Your task to perform on an android device: turn off notifications in google photos Image 0: 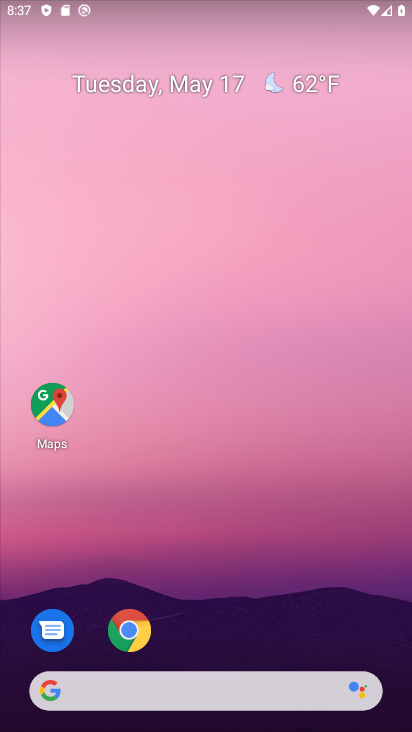
Step 0: press home button
Your task to perform on an android device: turn off notifications in google photos Image 1: 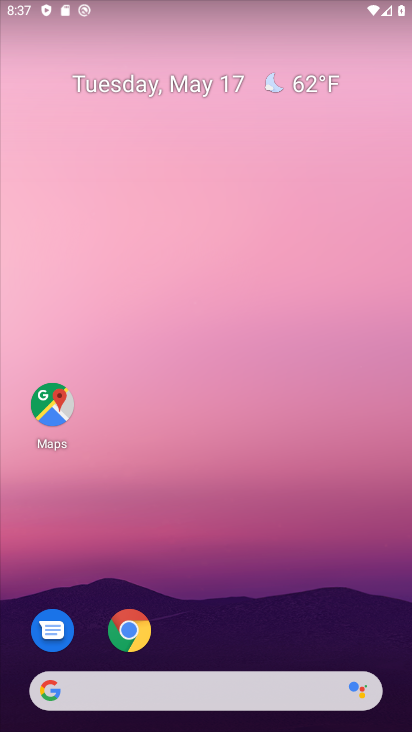
Step 1: drag from (216, 621) to (172, 281)
Your task to perform on an android device: turn off notifications in google photos Image 2: 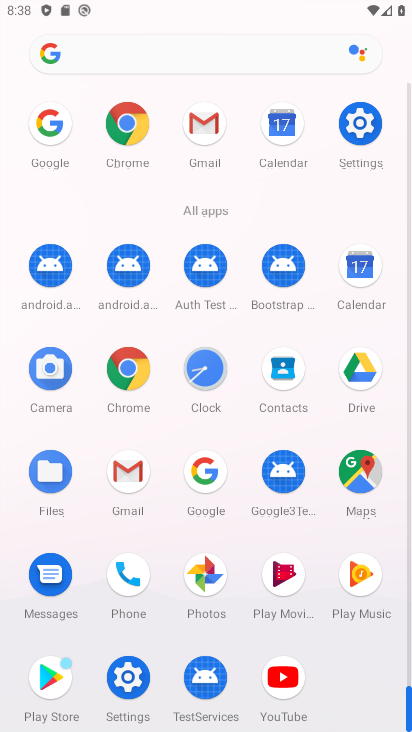
Step 2: click (195, 583)
Your task to perform on an android device: turn off notifications in google photos Image 3: 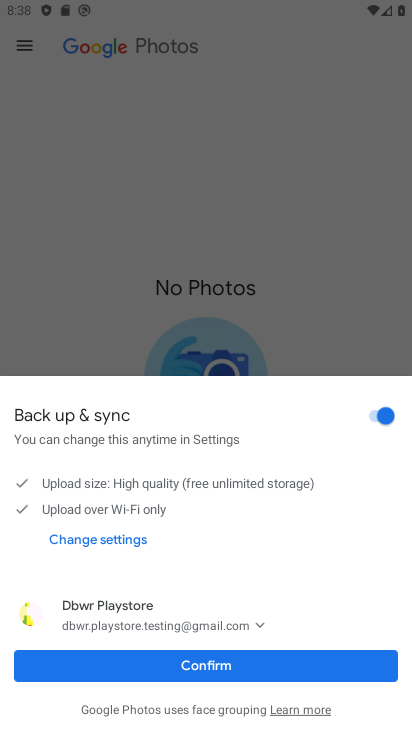
Step 3: click (226, 666)
Your task to perform on an android device: turn off notifications in google photos Image 4: 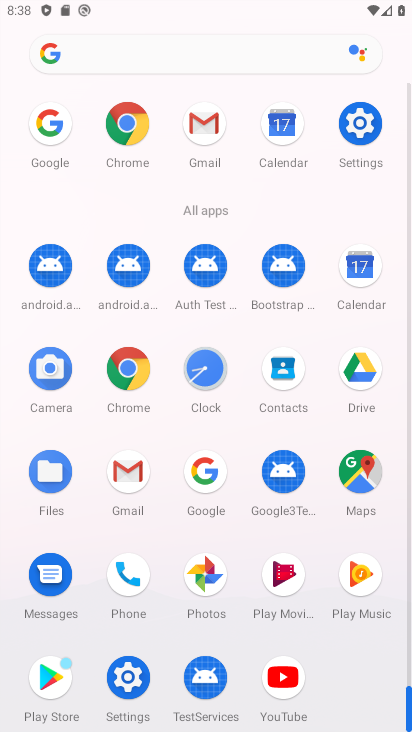
Step 4: click (199, 599)
Your task to perform on an android device: turn off notifications in google photos Image 5: 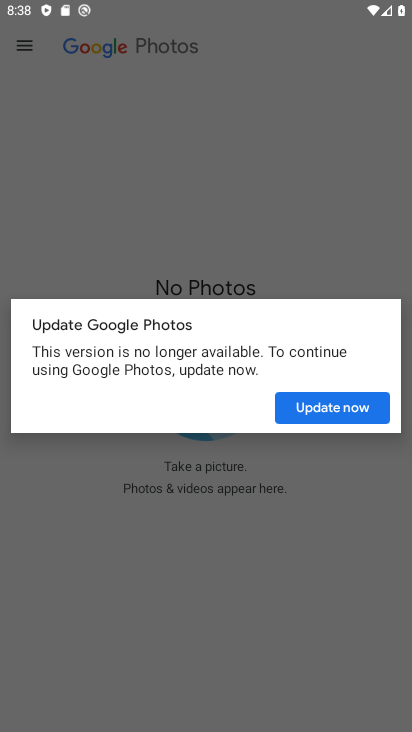
Step 5: click (308, 414)
Your task to perform on an android device: turn off notifications in google photos Image 6: 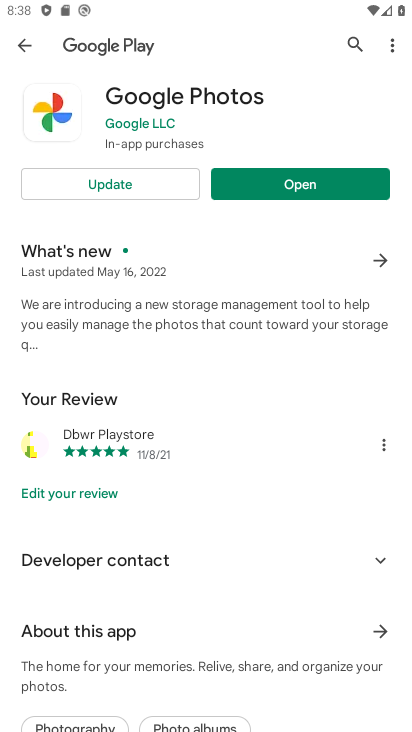
Step 6: click (298, 190)
Your task to perform on an android device: turn off notifications in google photos Image 7: 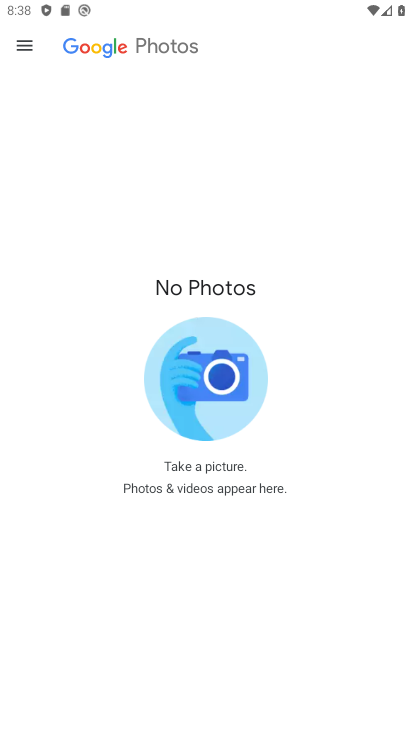
Step 7: click (22, 47)
Your task to perform on an android device: turn off notifications in google photos Image 8: 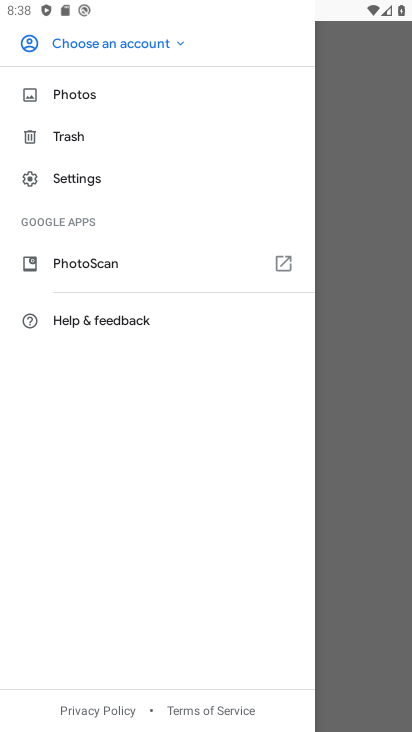
Step 8: click (85, 180)
Your task to perform on an android device: turn off notifications in google photos Image 9: 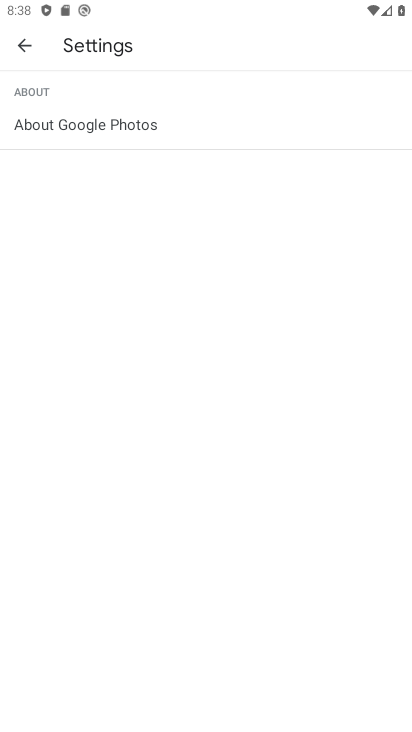
Step 9: click (26, 51)
Your task to perform on an android device: turn off notifications in google photos Image 10: 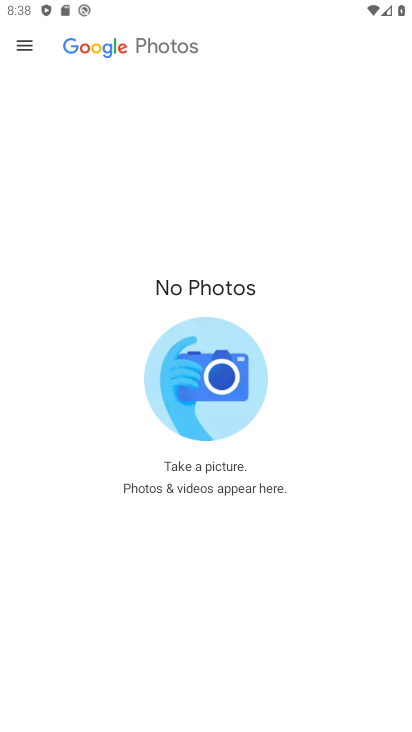
Step 10: click (26, 51)
Your task to perform on an android device: turn off notifications in google photos Image 11: 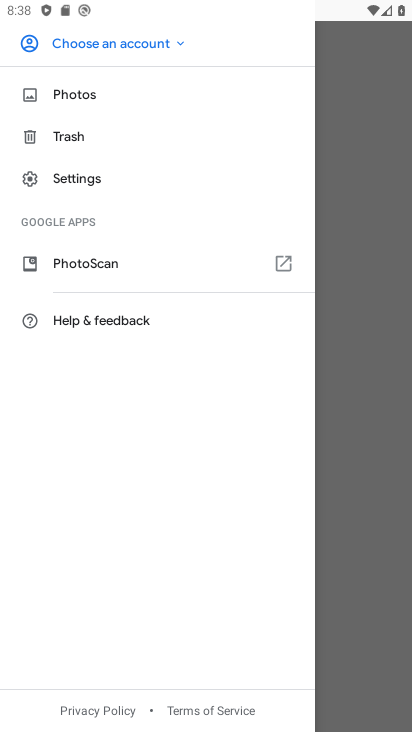
Step 11: click (85, 180)
Your task to perform on an android device: turn off notifications in google photos Image 12: 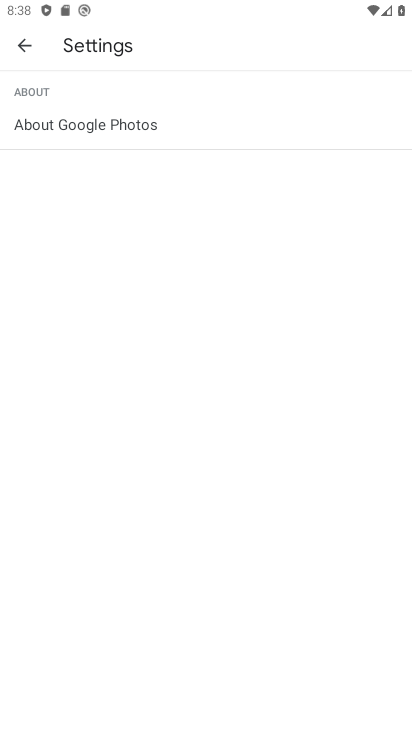
Step 12: click (73, 133)
Your task to perform on an android device: turn off notifications in google photos Image 13: 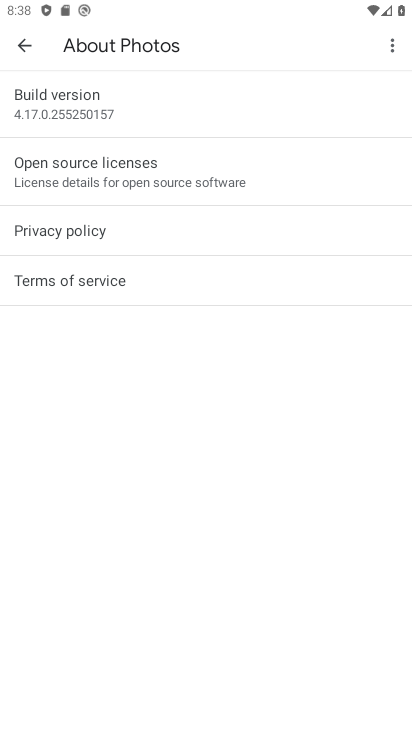
Step 13: click (20, 52)
Your task to perform on an android device: turn off notifications in google photos Image 14: 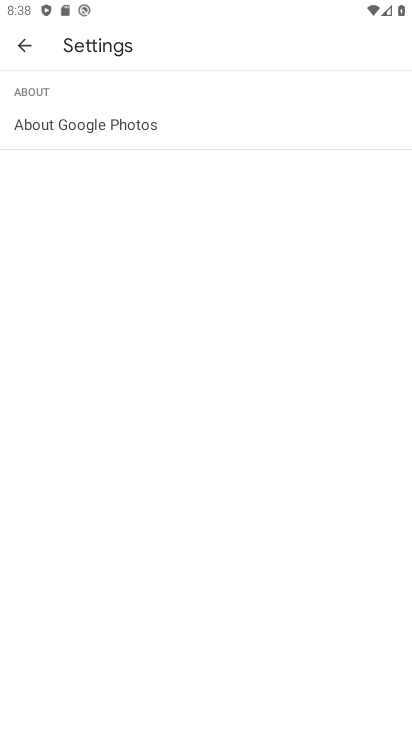
Step 14: click (36, 42)
Your task to perform on an android device: turn off notifications in google photos Image 15: 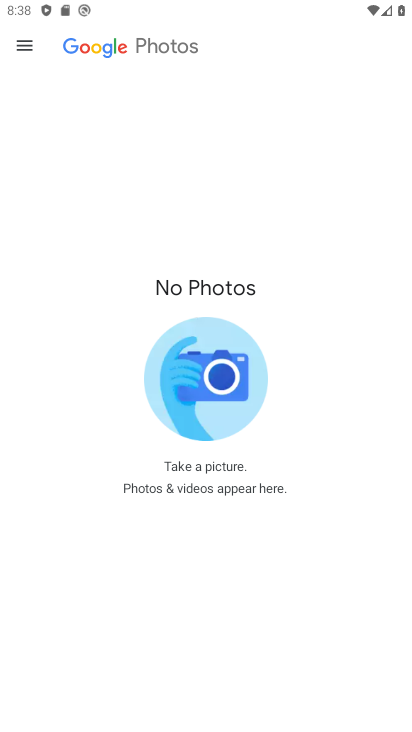
Step 15: click (33, 49)
Your task to perform on an android device: turn off notifications in google photos Image 16: 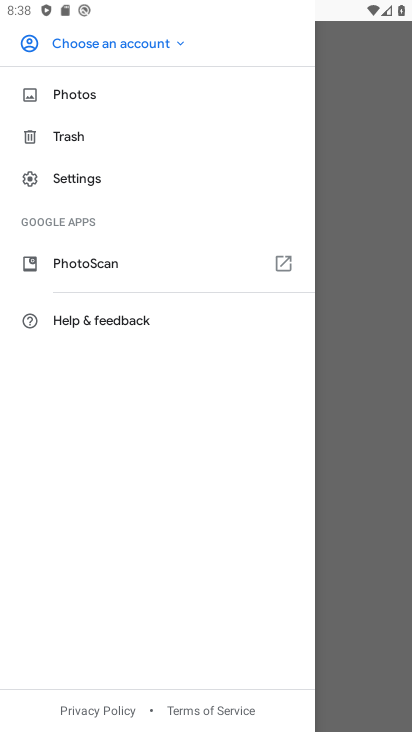
Step 16: click (83, 175)
Your task to perform on an android device: turn off notifications in google photos Image 17: 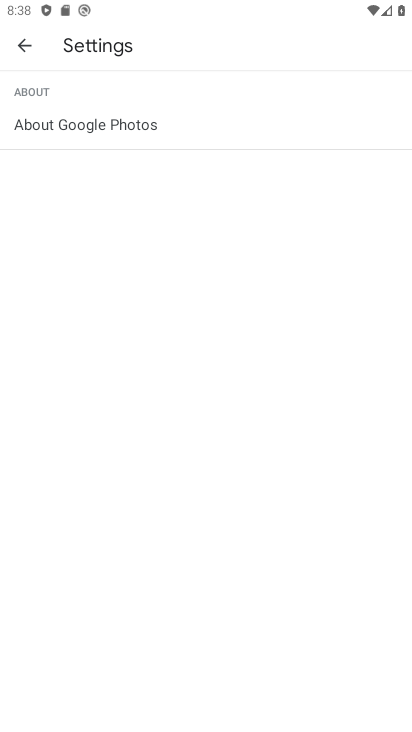
Step 17: click (76, 55)
Your task to perform on an android device: turn off notifications in google photos Image 18: 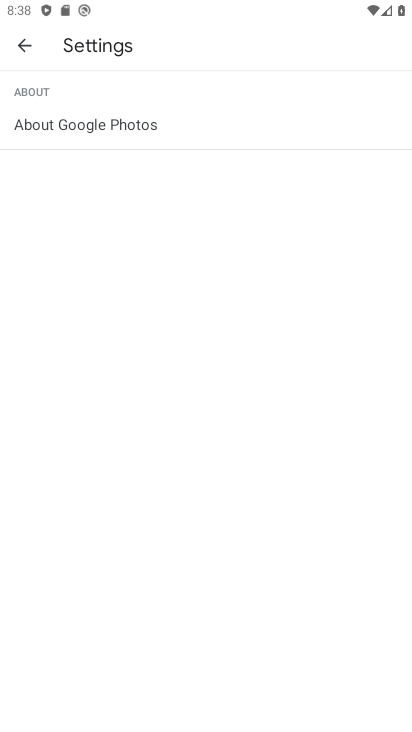
Step 18: click (22, 41)
Your task to perform on an android device: turn off notifications in google photos Image 19: 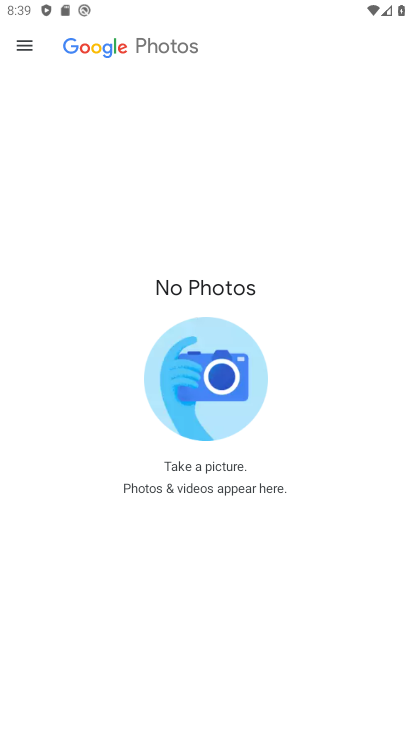
Step 19: click (26, 49)
Your task to perform on an android device: turn off notifications in google photos Image 20: 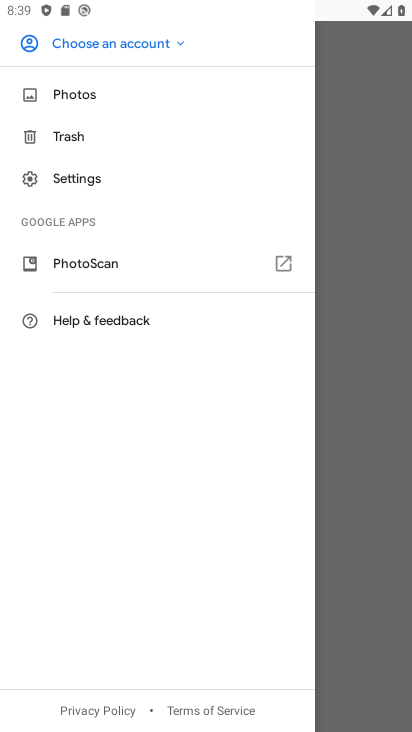
Step 20: click (64, 98)
Your task to perform on an android device: turn off notifications in google photos Image 21: 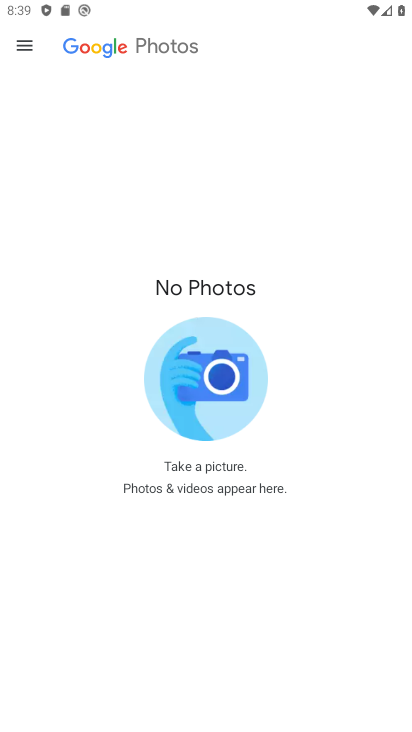
Step 21: click (34, 47)
Your task to perform on an android device: turn off notifications in google photos Image 22: 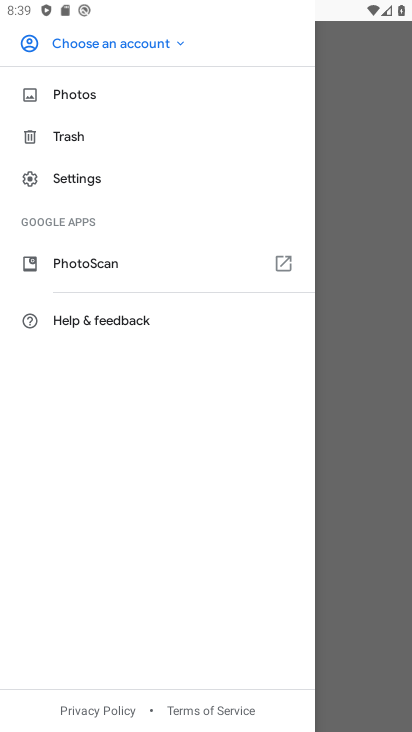
Step 22: click (123, 38)
Your task to perform on an android device: turn off notifications in google photos Image 23: 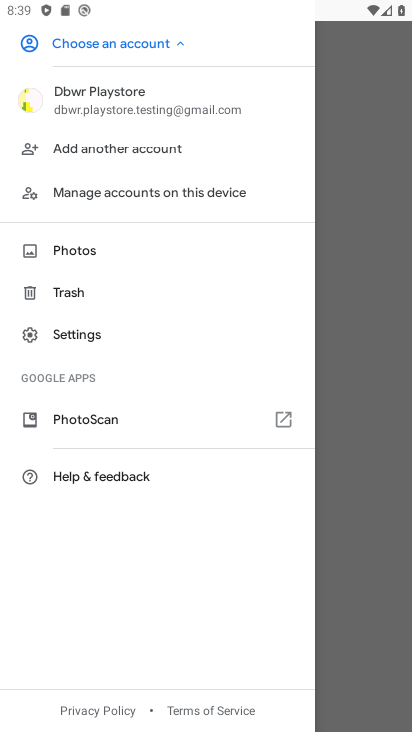
Step 23: click (113, 105)
Your task to perform on an android device: turn off notifications in google photos Image 24: 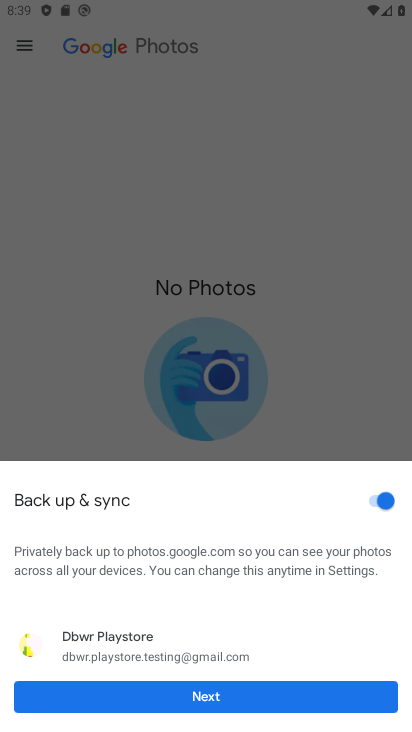
Step 24: click (198, 684)
Your task to perform on an android device: turn off notifications in google photos Image 25: 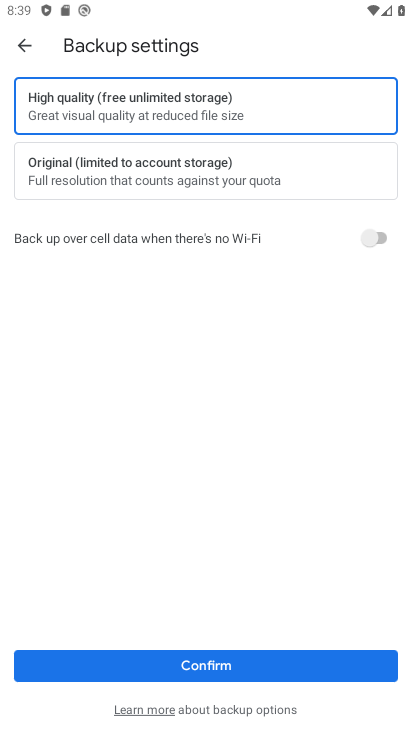
Step 25: click (193, 677)
Your task to perform on an android device: turn off notifications in google photos Image 26: 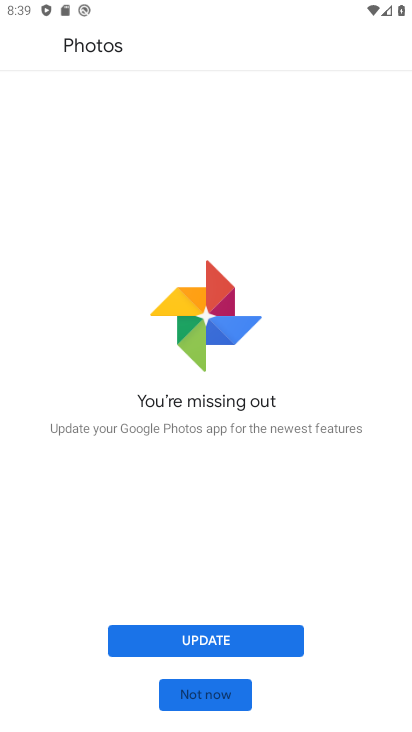
Step 26: click (204, 696)
Your task to perform on an android device: turn off notifications in google photos Image 27: 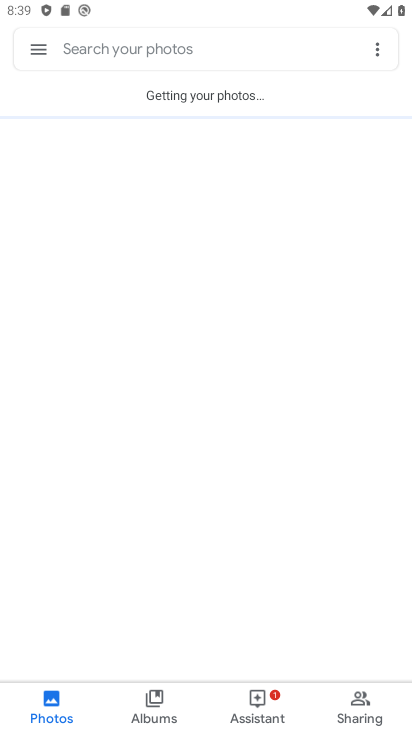
Step 27: click (41, 45)
Your task to perform on an android device: turn off notifications in google photos Image 28: 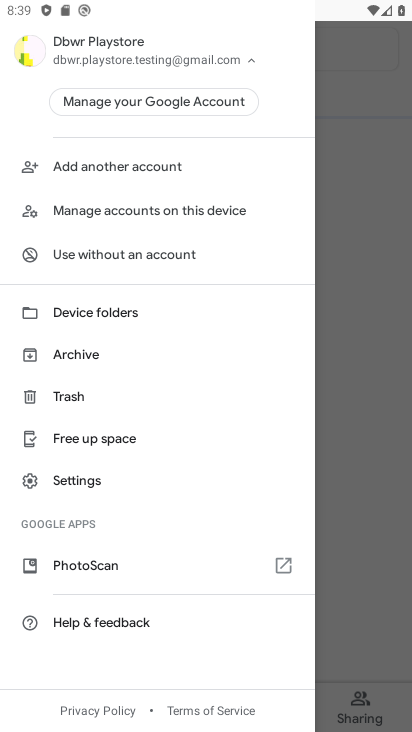
Step 28: click (79, 491)
Your task to perform on an android device: turn off notifications in google photos Image 29: 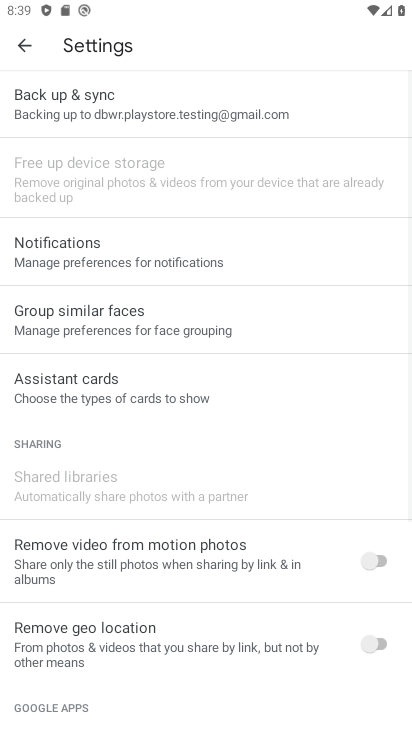
Step 29: click (107, 261)
Your task to perform on an android device: turn off notifications in google photos Image 30: 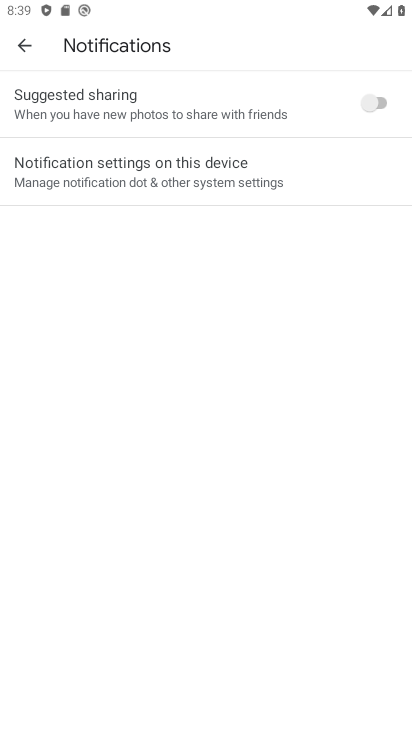
Step 30: click (266, 188)
Your task to perform on an android device: turn off notifications in google photos Image 31: 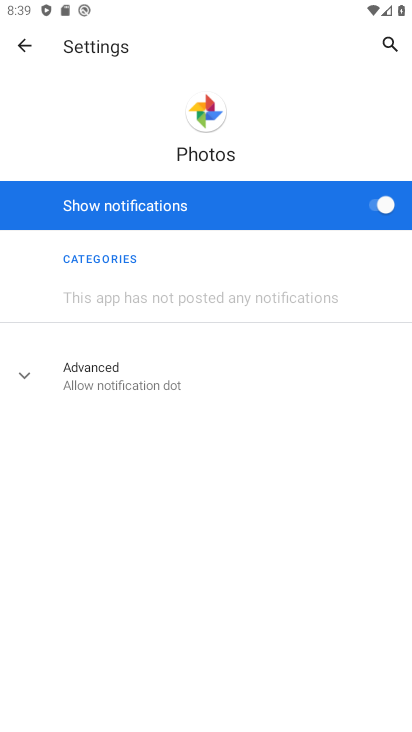
Step 31: click (366, 207)
Your task to perform on an android device: turn off notifications in google photos Image 32: 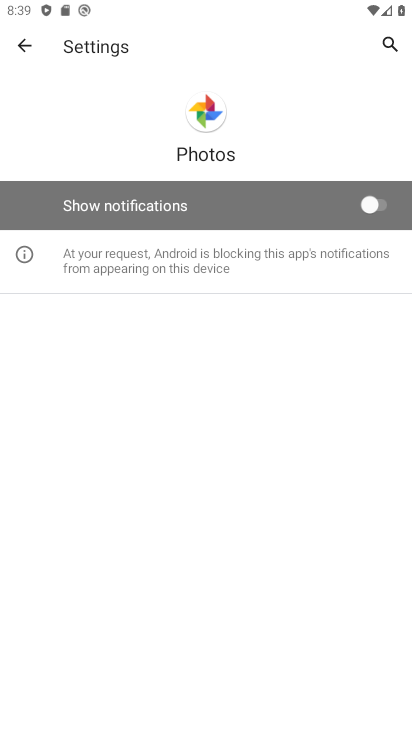
Step 32: task complete